Your task to perform on an android device: Show me productivity apps on the Play Store Image 0: 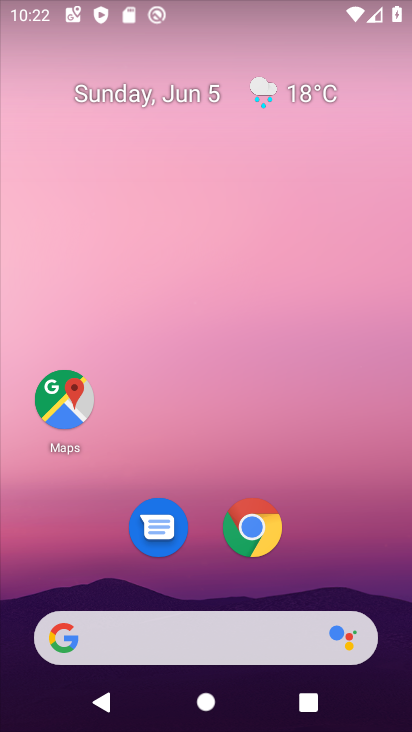
Step 0: drag from (379, 553) to (138, 8)
Your task to perform on an android device: Show me productivity apps on the Play Store Image 1: 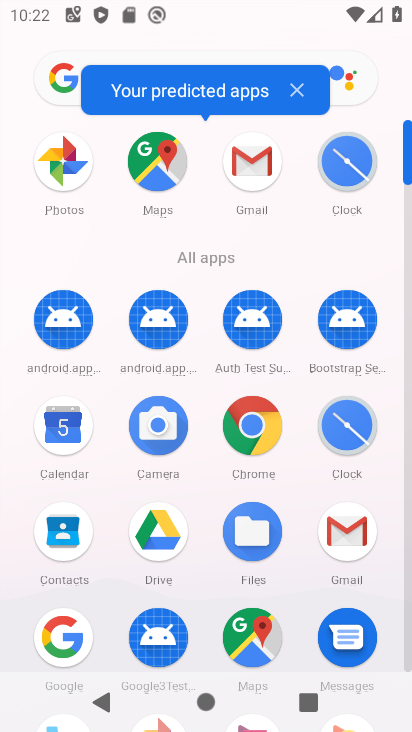
Step 1: drag from (225, 570) to (242, 180)
Your task to perform on an android device: Show me productivity apps on the Play Store Image 2: 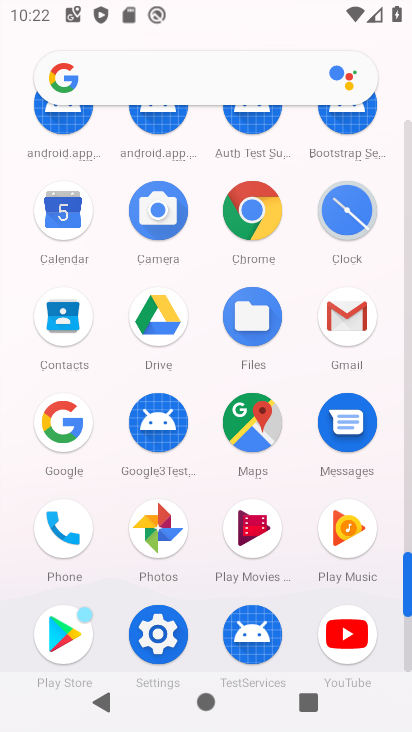
Step 2: click (62, 633)
Your task to perform on an android device: Show me productivity apps on the Play Store Image 3: 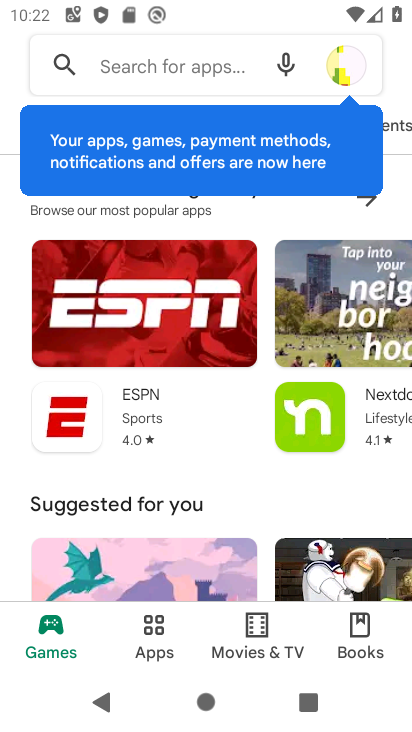
Step 3: click (149, 632)
Your task to perform on an android device: Show me productivity apps on the Play Store Image 4: 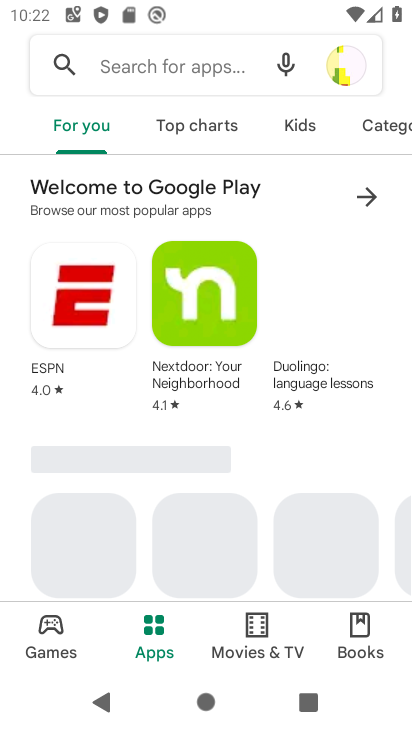
Step 4: click (174, 75)
Your task to perform on an android device: Show me productivity apps on the Play Store Image 5: 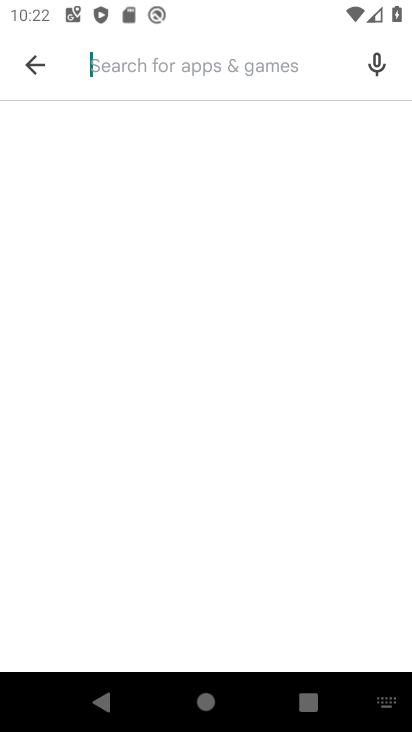
Step 5: type "productivity appa"
Your task to perform on an android device: Show me productivity apps on the Play Store Image 6: 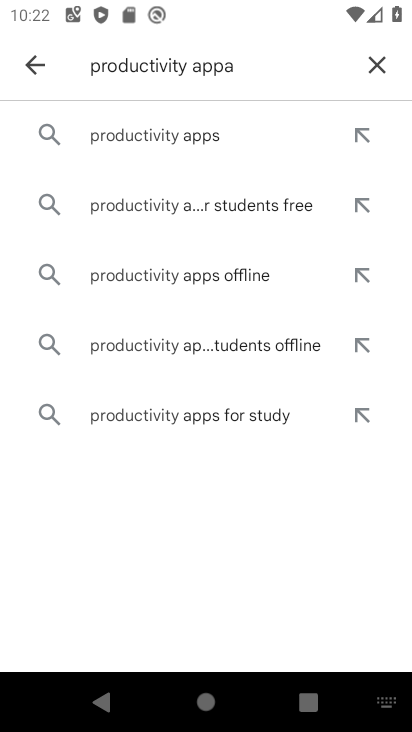
Step 6: click (207, 141)
Your task to perform on an android device: Show me productivity apps on the Play Store Image 7: 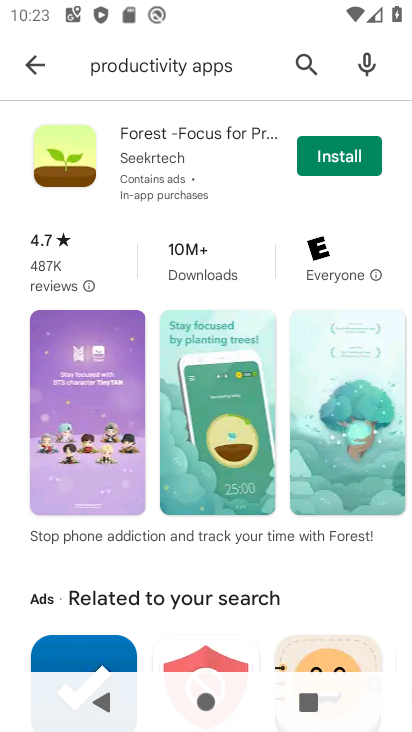
Step 7: task complete